Your task to perform on an android device: check storage Image 0: 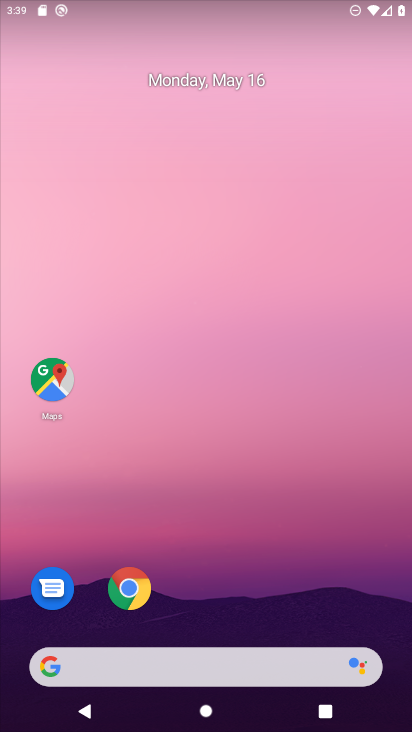
Step 0: drag from (290, 459) to (303, 37)
Your task to perform on an android device: check storage Image 1: 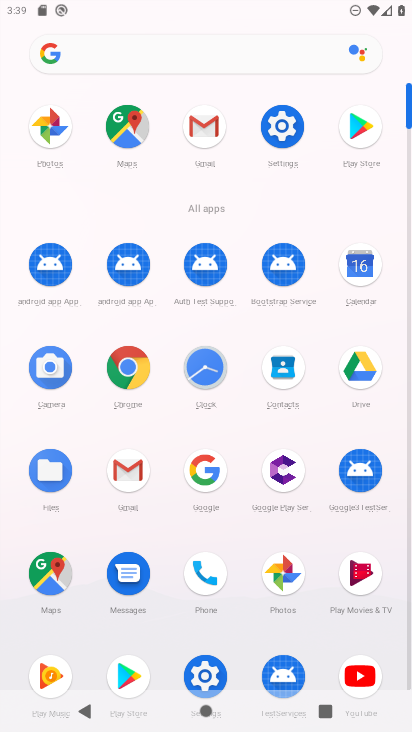
Step 1: click (282, 125)
Your task to perform on an android device: check storage Image 2: 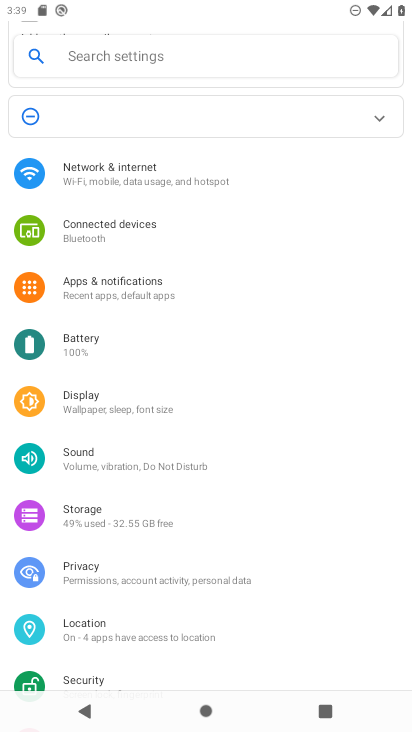
Step 2: click (60, 521)
Your task to perform on an android device: check storage Image 3: 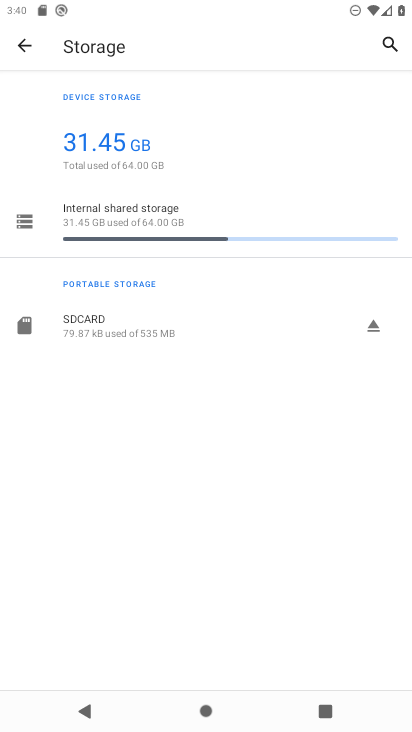
Step 3: click (106, 220)
Your task to perform on an android device: check storage Image 4: 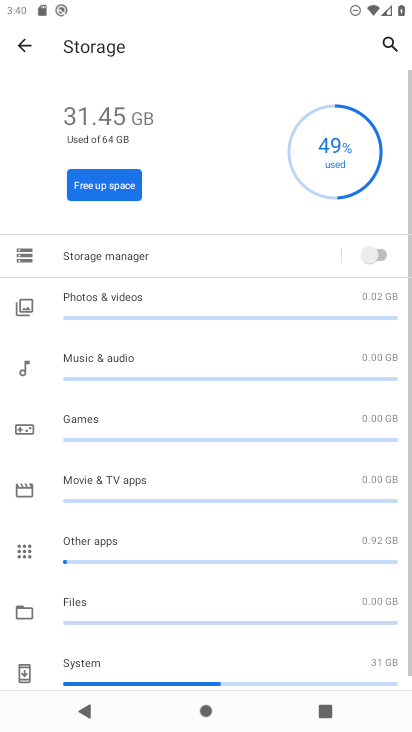
Step 4: task complete